Your task to perform on an android device: Open ESPN.com Image 0: 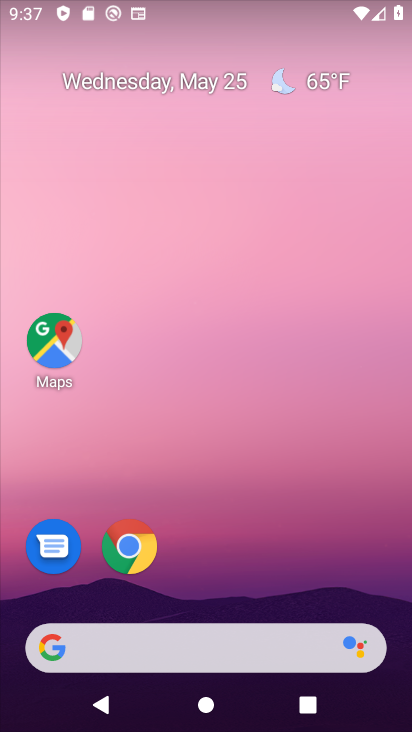
Step 0: drag from (249, 553) to (211, 9)
Your task to perform on an android device: Open ESPN.com Image 1: 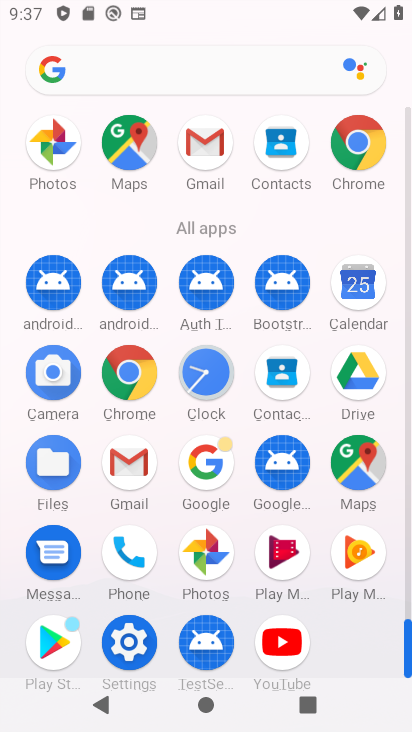
Step 1: drag from (7, 560) to (7, 258)
Your task to perform on an android device: Open ESPN.com Image 2: 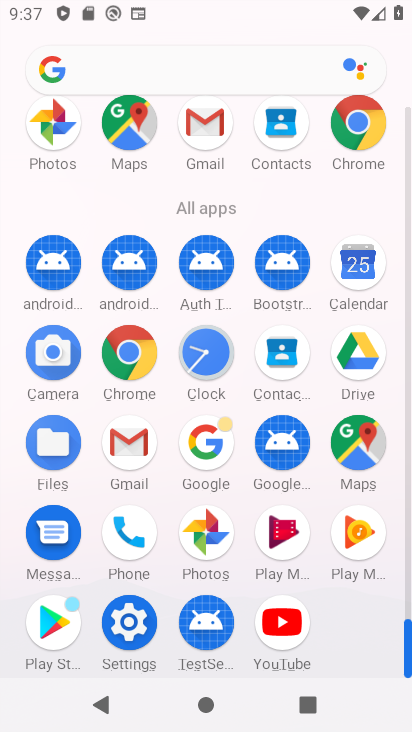
Step 2: click (125, 350)
Your task to perform on an android device: Open ESPN.com Image 3: 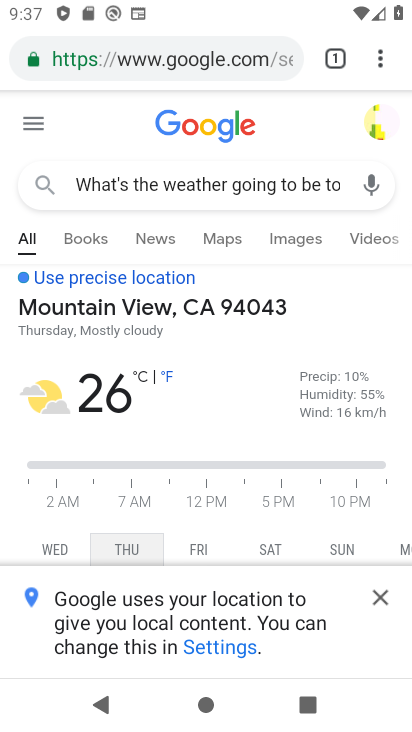
Step 3: click (212, 59)
Your task to perform on an android device: Open ESPN.com Image 4: 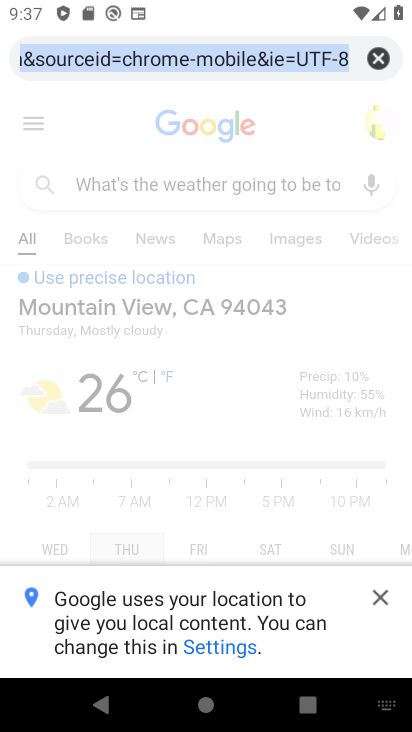
Step 4: click (377, 62)
Your task to perform on an android device: Open ESPN.com Image 5: 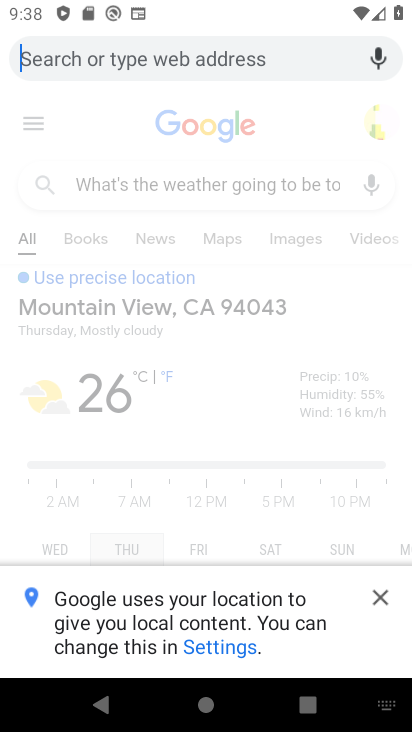
Step 5: type " ESPN.com"
Your task to perform on an android device: Open ESPN.com Image 6: 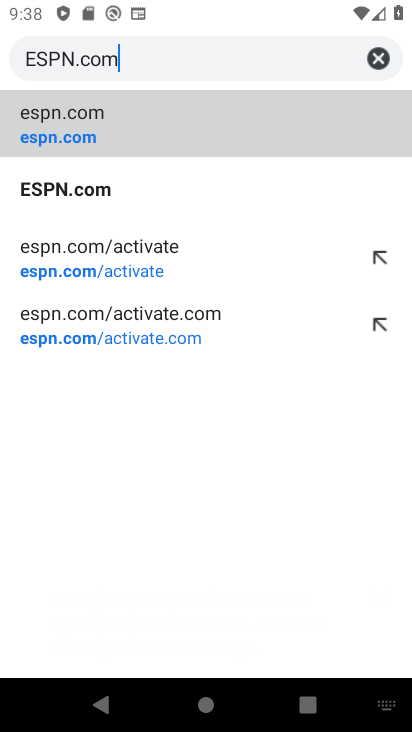
Step 6: type ""
Your task to perform on an android device: Open ESPN.com Image 7: 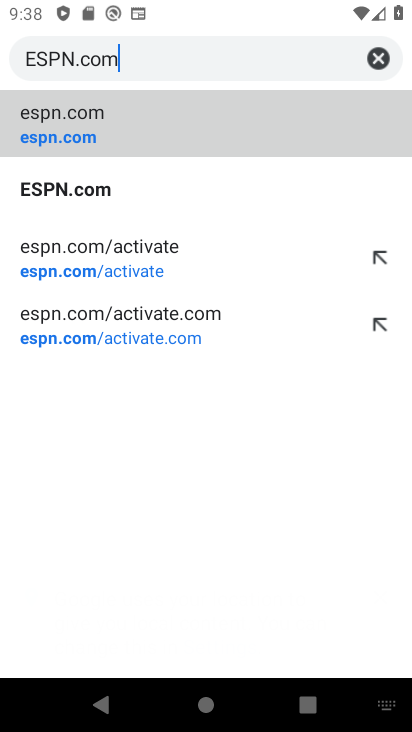
Step 7: click (80, 127)
Your task to perform on an android device: Open ESPN.com Image 8: 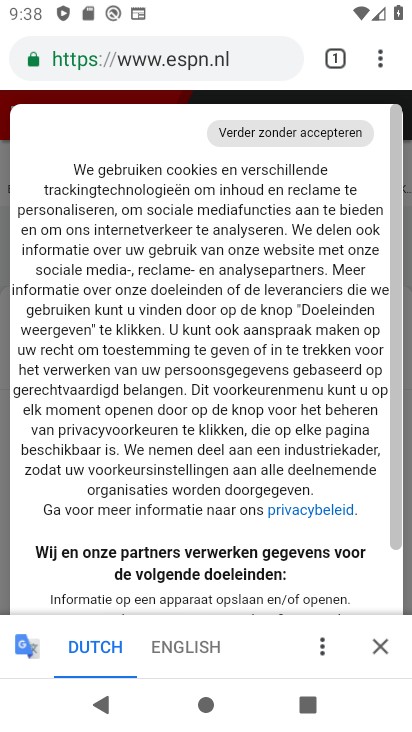
Step 8: drag from (129, 530) to (123, 183)
Your task to perform on an android device: Open ESPN.com Image 9: 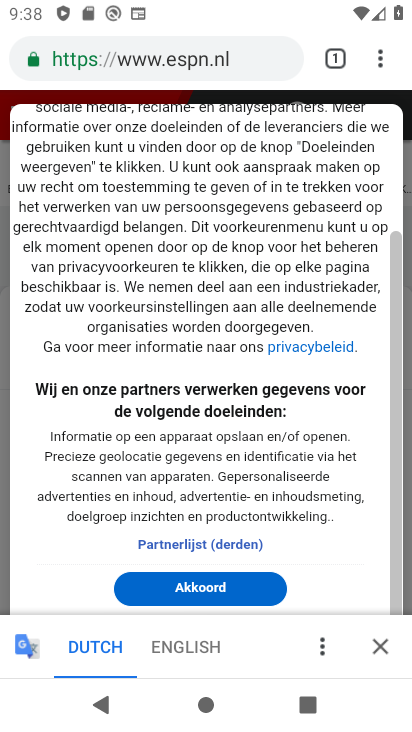
Step 9: click (175, 589)
Your task to perform on an android device: Open ESPN.com Image 10: 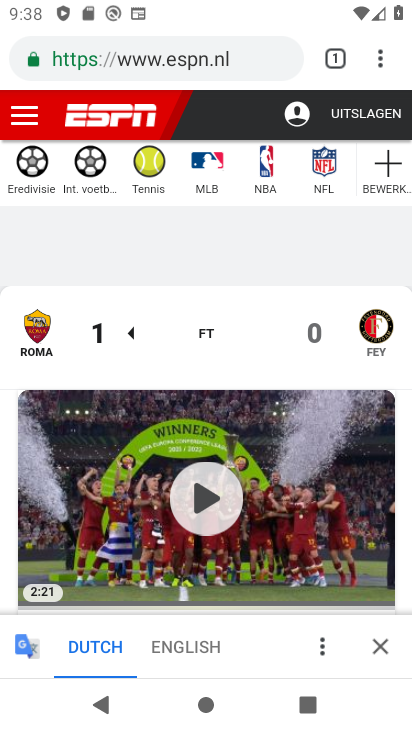
Step 10: task complete